Your task to perform on an android device: Open the Play Movies app and select the watchlist tab. Image 0: 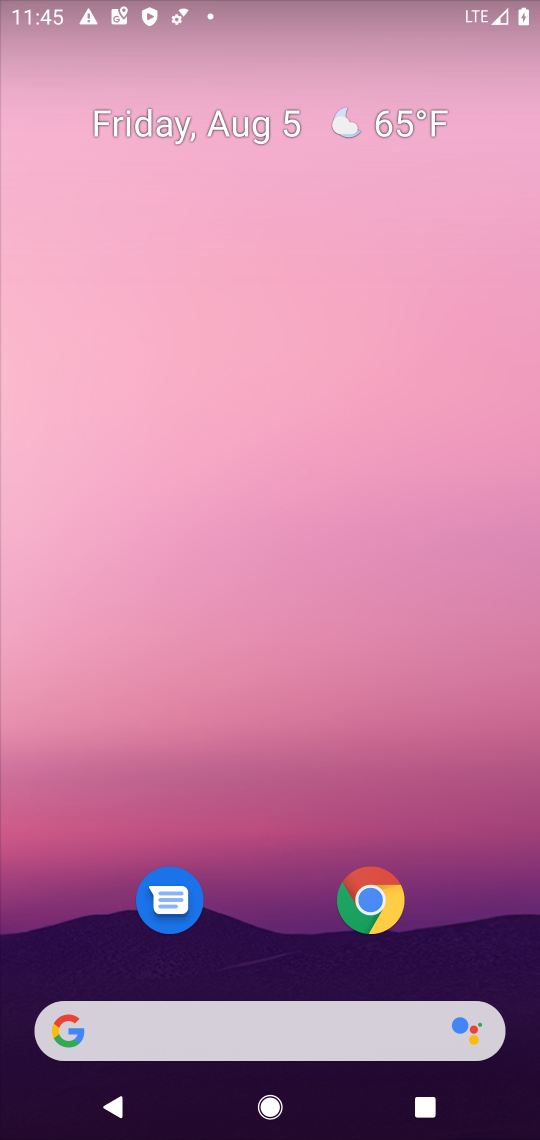
Step 0: drag from (278, 378) to (278, 196)
Your task to perform on an android device: Open the Play Movies app and select the watchlist tab. Image 1: 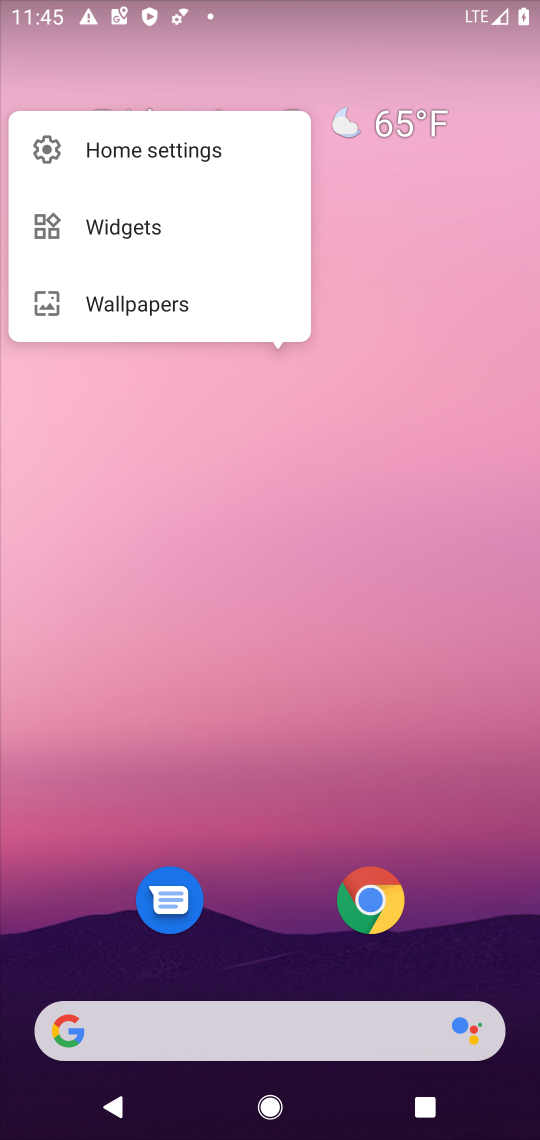
Step 1: click (303, 640)
Your task to perform on an android device: Open the Play Movies app and select the watchlist tab. Image 2: 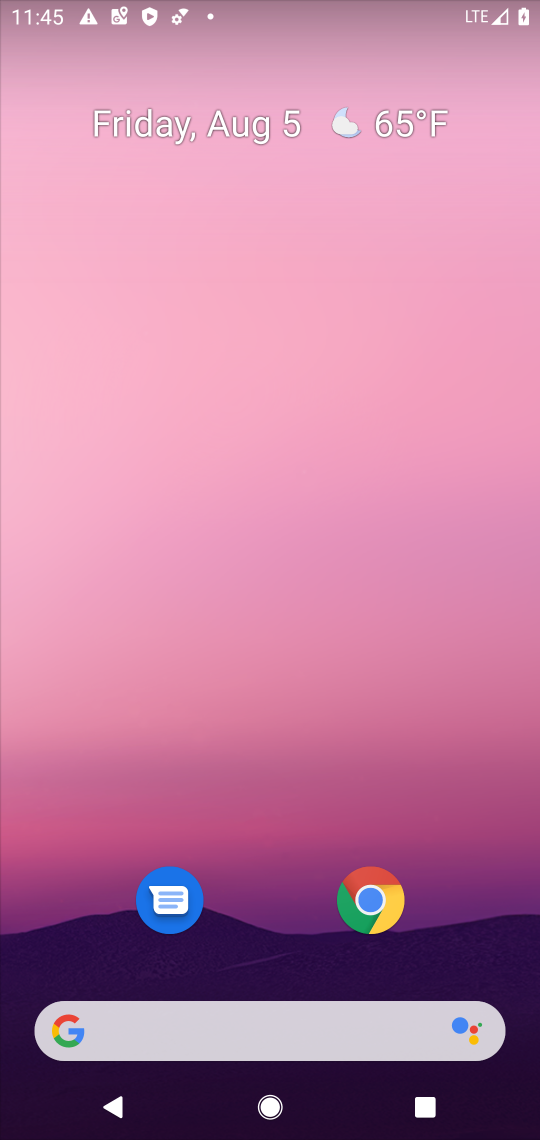
Step 2: drag from (279, 965) to (279, 181)
Your task to perform on an android device: Open the Play Movies app and select the watchlist tab. Image 3: 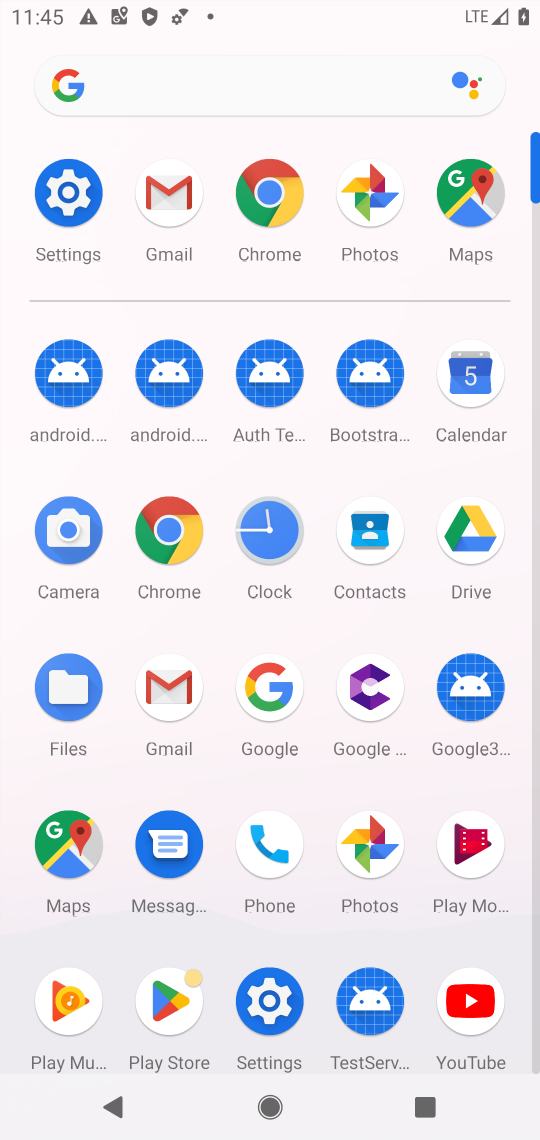
Step 3: click (477, 843)
Your task to perform on an android device: Open the Play Movies app and select the watchlist tab. Image 4: 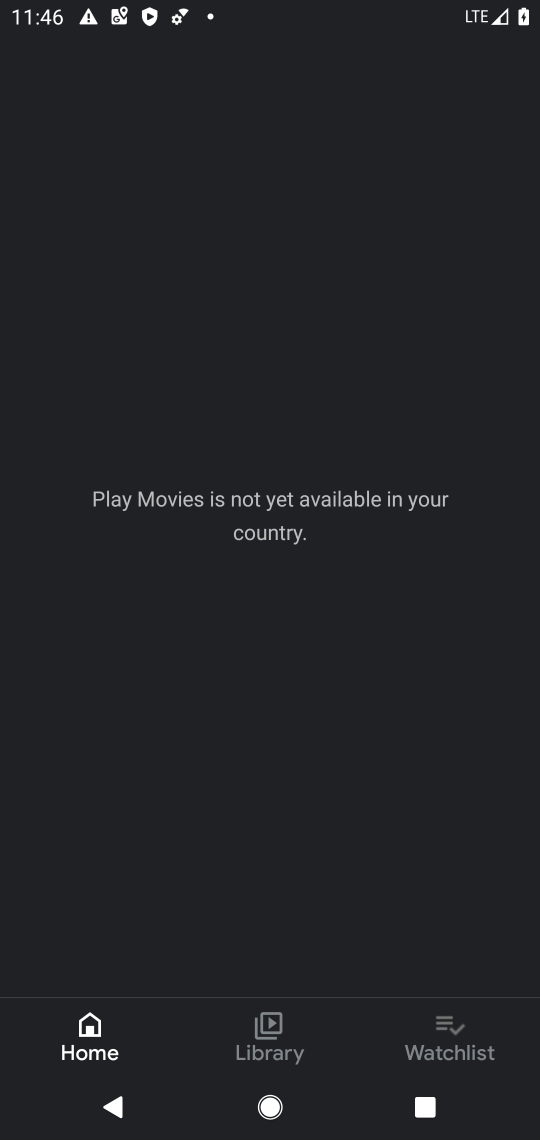
Step 4: click (455, 1051)
Your task to perform on an android device: Open the Play Movies app and select the watchlist tab. Image 5: 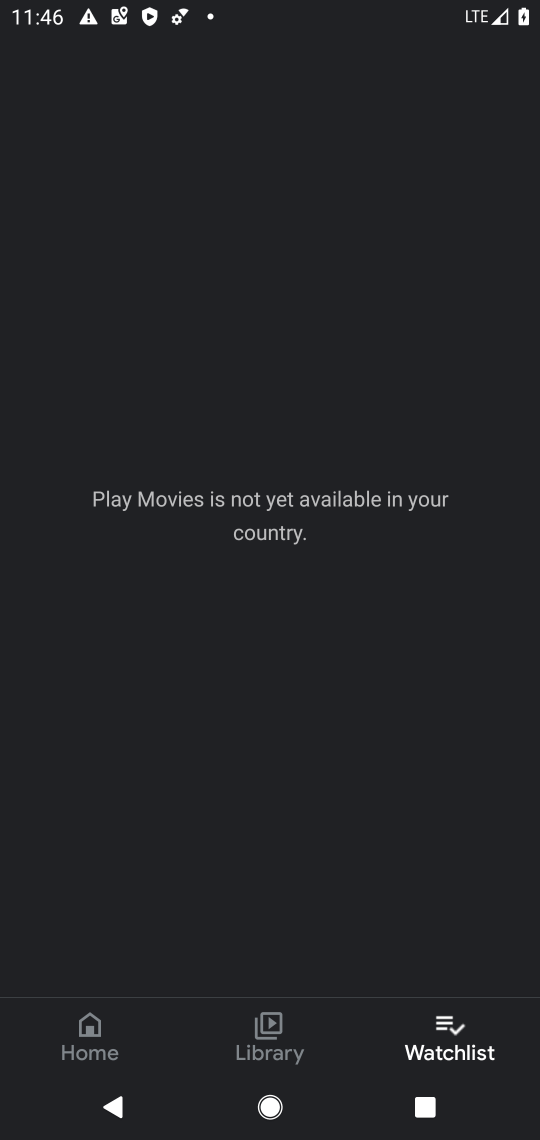
Step 5: task complete